Your task to perform on an android device: allow cookies in the chrome app Image 0: 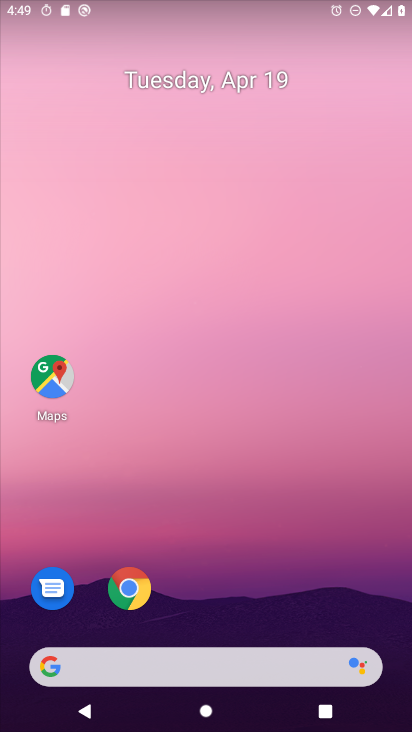
Step 0: click (128, 585)
Your task to perform on an android device: allow cookies in the chrome app Image 1: 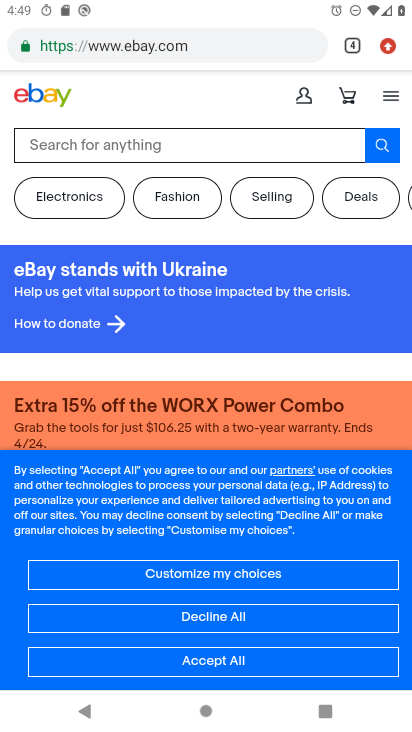
Step 1: click (388, 45)
Your task to perform on an android device: allow cookies in the chrome app Image 2: 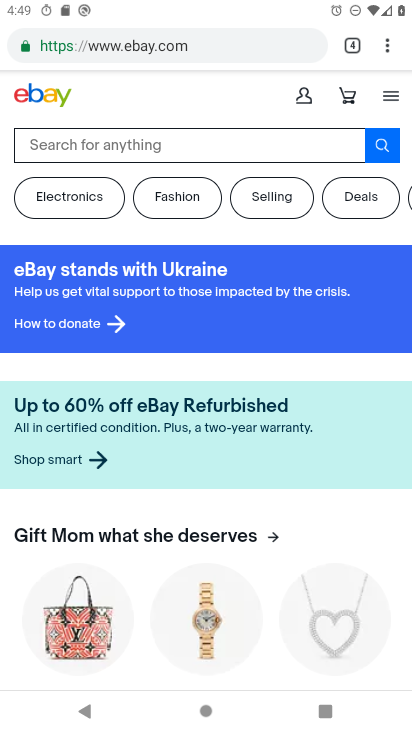
Step 2: click (384, 42)
Your task to perform on an android device: allow cookies in the chrome app Image 3: 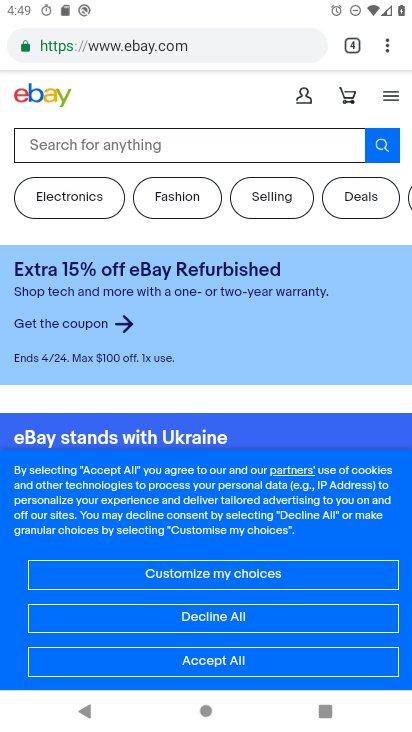
Step 3: click (388, 46)
Your task to perform on an android device: allow cookies in the chrome app Image 4: 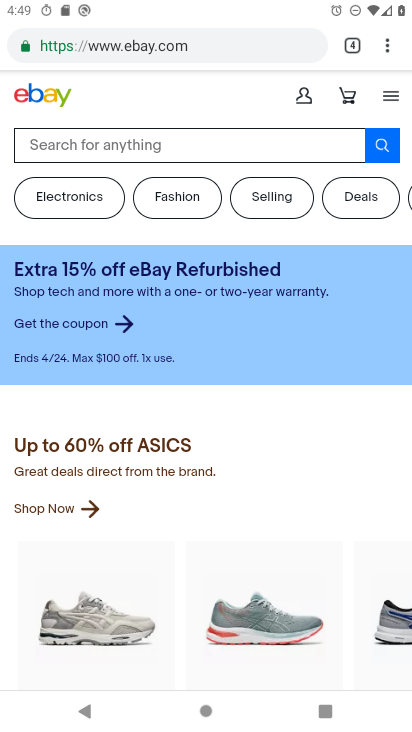
Step 4: click (388, 42)
Your task to perform on an android device: allow cookies in the chrome app Image 5: 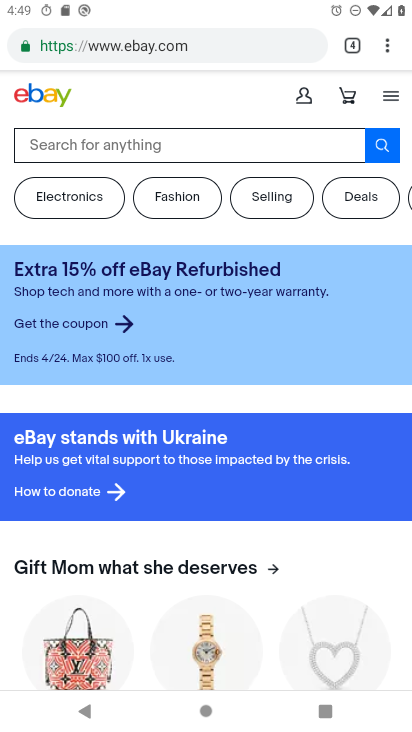
Step 5: click (388, 42)
Your task to perform on an android device: allow cookies in the chrome app Image 6: 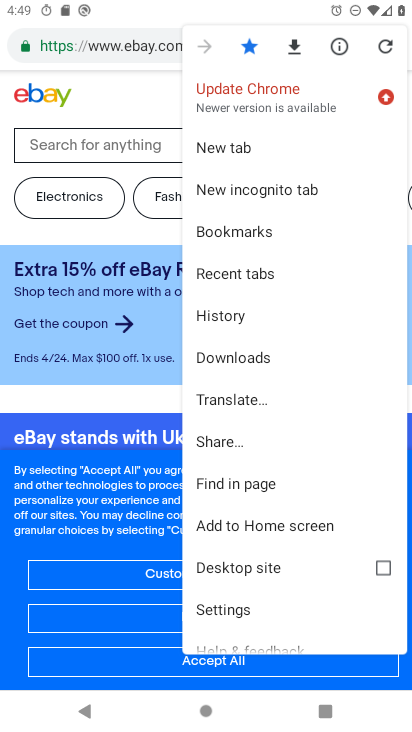
Step 6: click (240, 612)
Your task to perform on an android device: allow cookies in the chrome app Image 7: 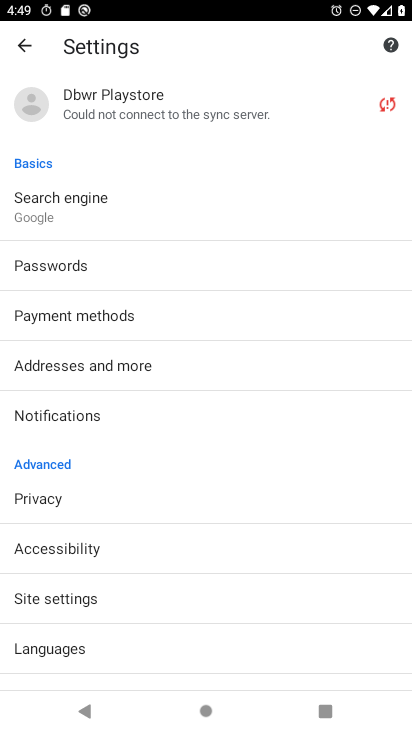
Step 7: click (140, 603)
Your task to perform on an android device: allow cookies in the chrome app Image 8: 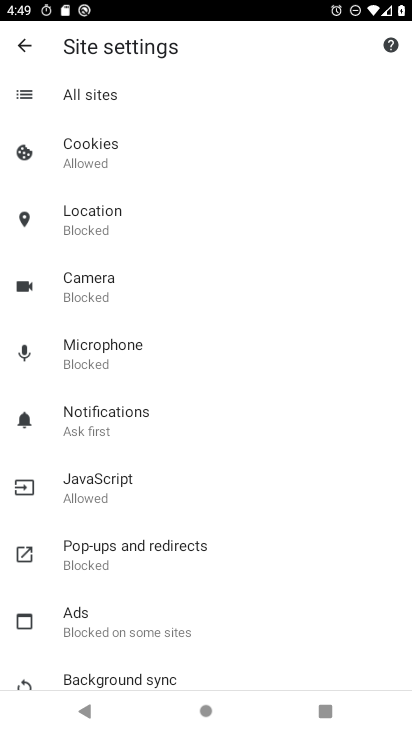
Step 8: click (105, 143)
Your task to perform on an android device: allow cookies in the chrome app Image 9: 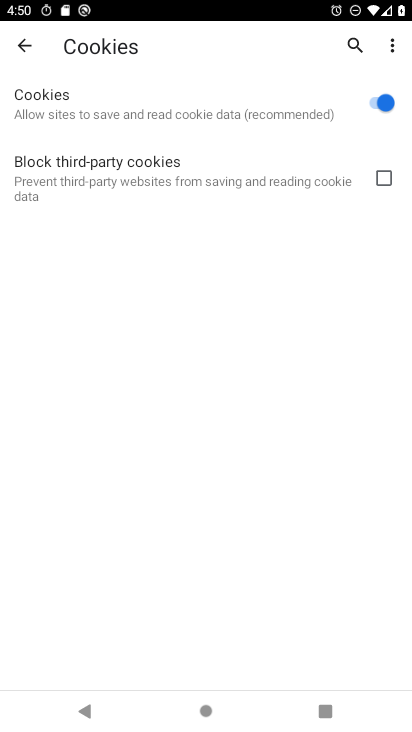
Step 9: task complete